Your task to perform on an android device: Open Google Maps and go to "Timeline" Image 0: 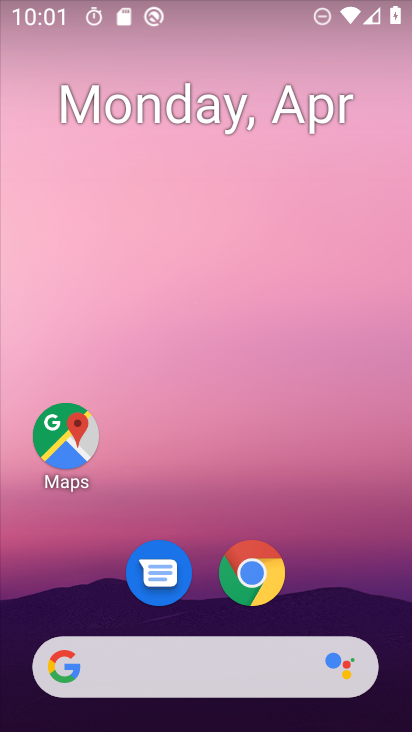
Step 0: drag from (320, 461) to (255, 112)
Your task to perform on an android device: Open Google Maps and go to "Timeline" Image 1: 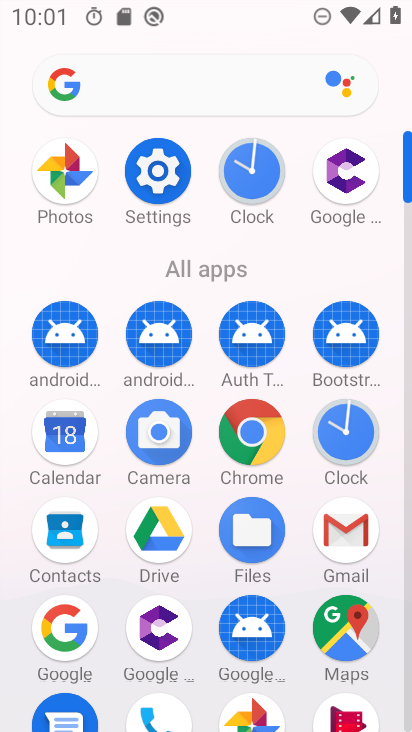
Step 1: click (345, 641)
Your task to perform on an android device: Open Google Maps and go to "Timeline" Image 2: 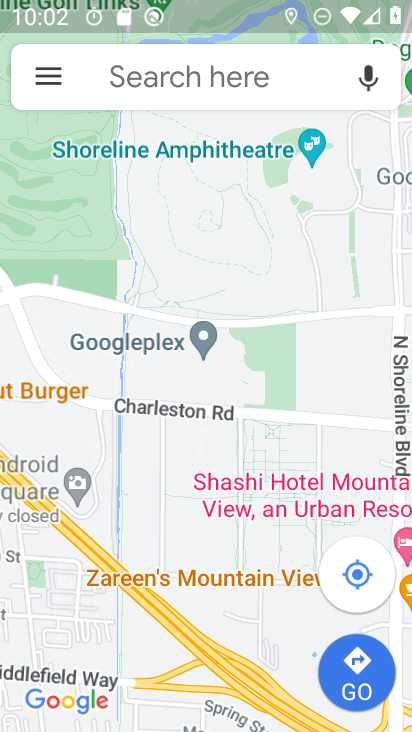
Step 2: click (34, 80)
Your task to perform on an android device: Open Google Maps and go to "Timeline" Image 3: 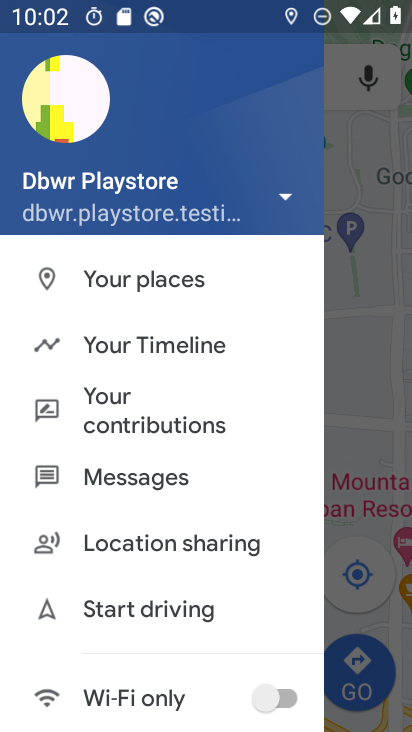
Step 3: click (114, 342)
Your task to perform on an android device: Open Google Maps and go to "Timeline" Image 4: 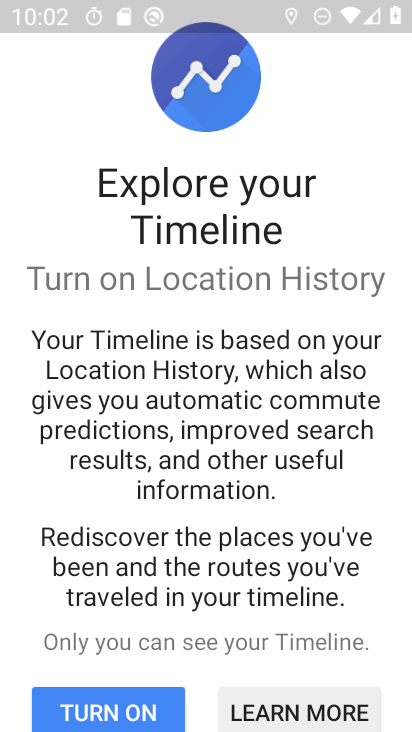
Step 4: drag from (308, 439) to (376, 168)
Your task to perform on an android device: Open Google Maps and go to "Timeline" Image 5: 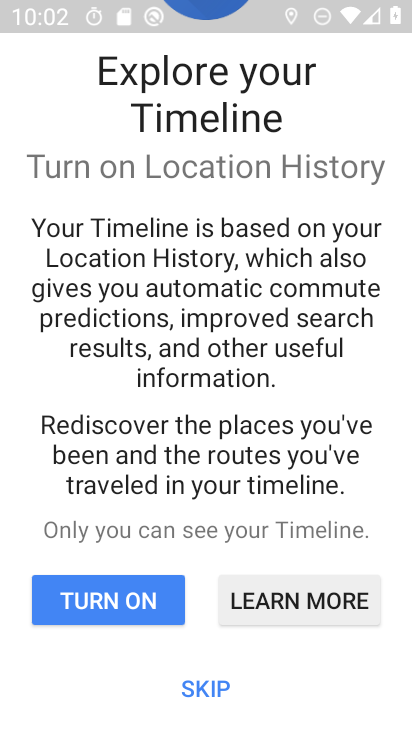
Step 5: click (320, 605)
Your task to perform on an android device: Open Google Maps and go to "Timeline" Image 6: 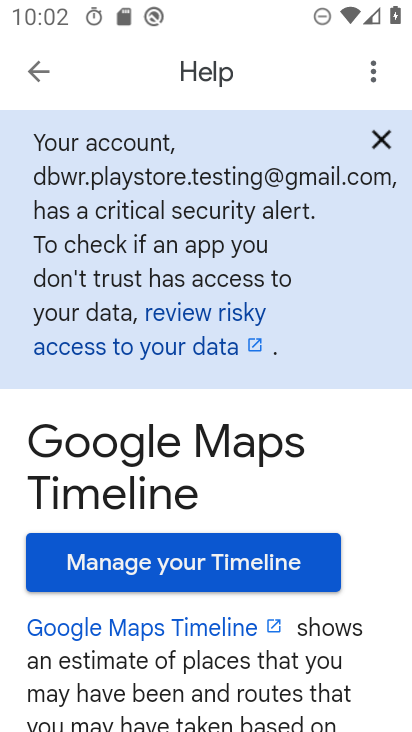
Step 6: click (32, 74)
Your task to perform on an android device: Open Google Maps and go to "Timeline" Image 7: 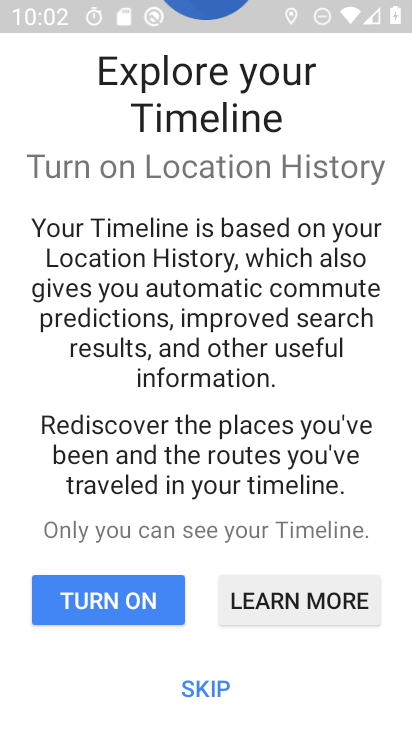
Step 7: task complete